Your task to perform on an android device: delete browsing data in the chrome app Image 0: 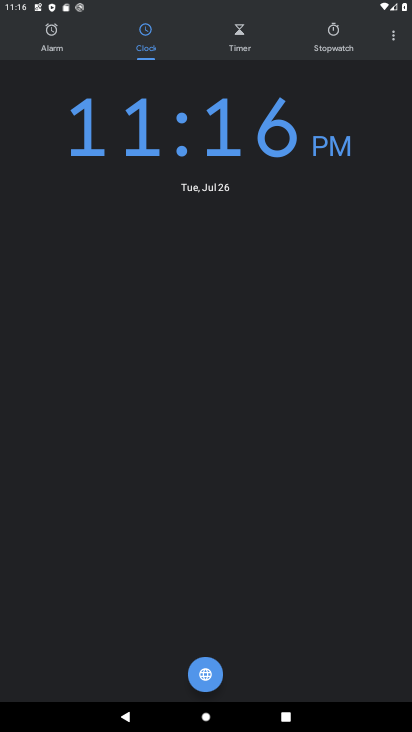
Step 0: press home button
Your task to perform on an android device: delete browsing data in the chrome app Image 1: 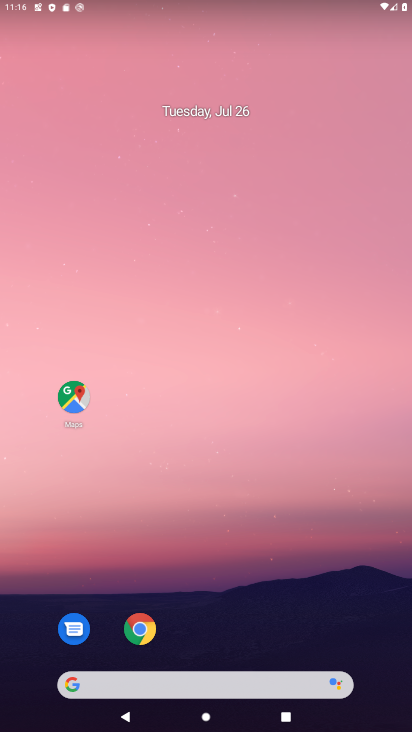
Step 1: click (134, 627)
Your task to perform on an android device: delete browsing data in the chrome app Image 2: 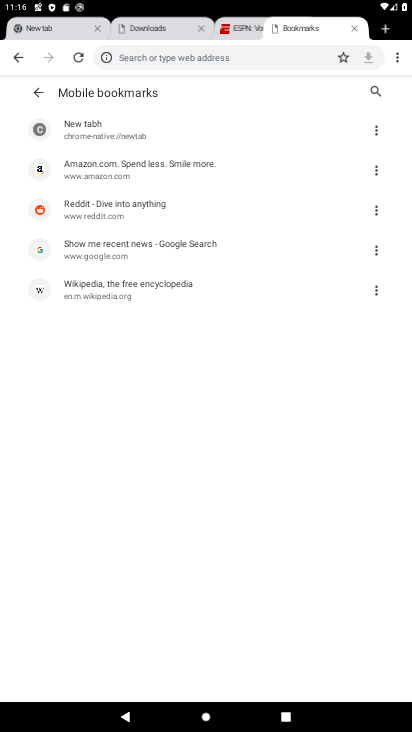
Step 2: click (399, 54)
Your task to perform on an android device: delete browsing data in the chrome app Image 3: 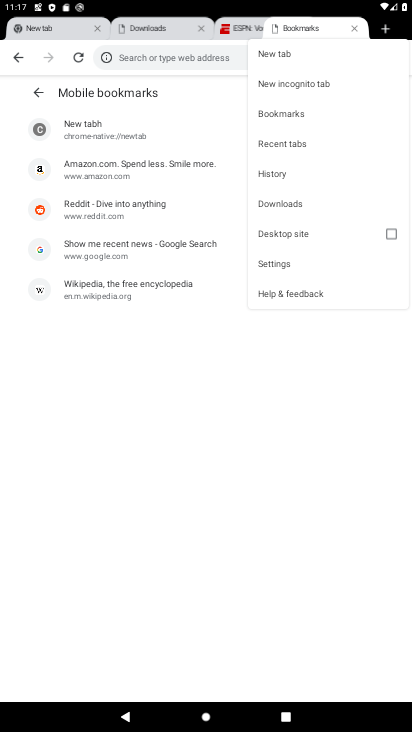
Step 3: click (293, 172)
Your task to perform on an android device: delete browsing data in the chrome app Image 4: 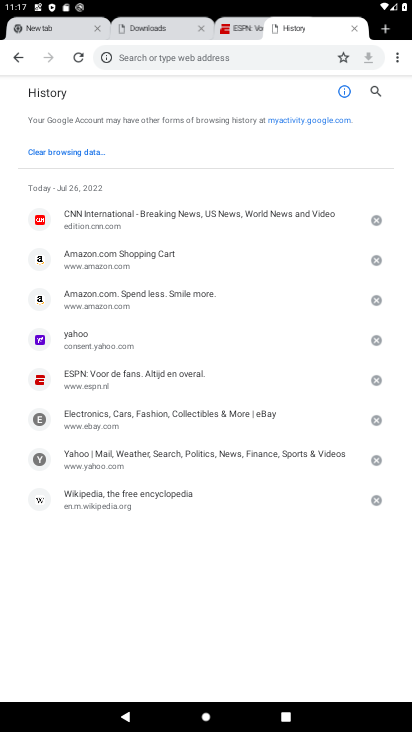
Step 4: click (83, 147)
Your task to perform on an android device: delete browsing data in the chrome app Image 5: 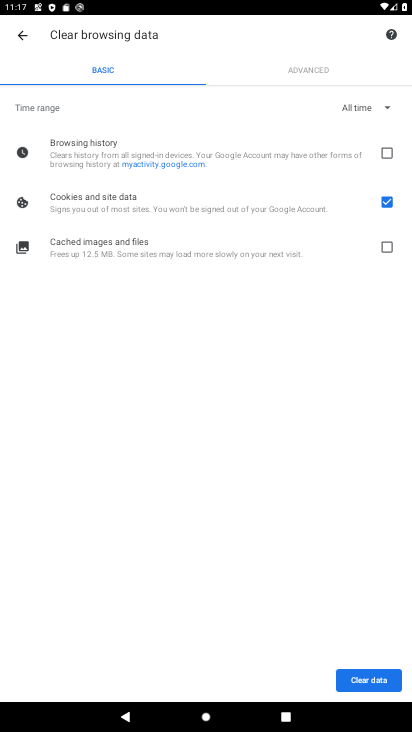
Step 5: click (388, 166)
Your task to perform on an android device: delete browsing data in the chrome app Image 6: 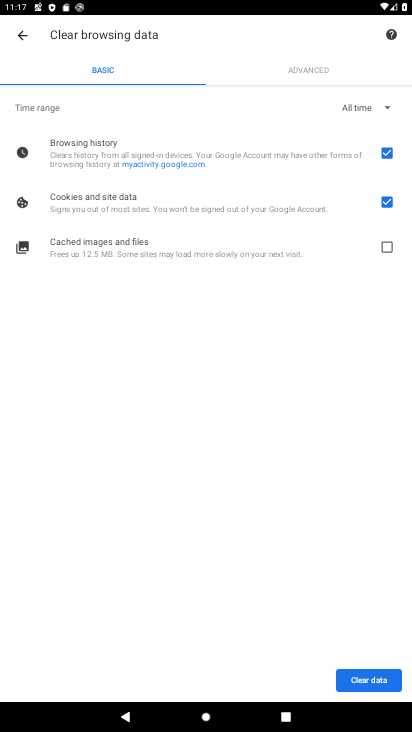
Step 6: click (384, 249)
Your task to perform on an android device: delete browsing data in the chrome app Image 7: 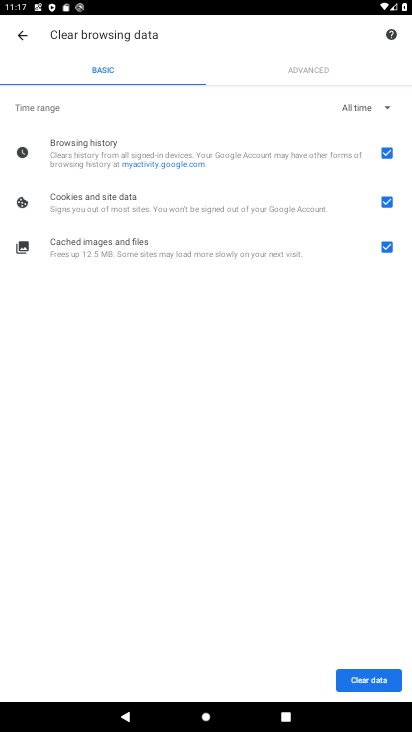
Step 7: click (376, 684)
Your task to perform on an android device: delete browsing data in the chrome app Image 8: 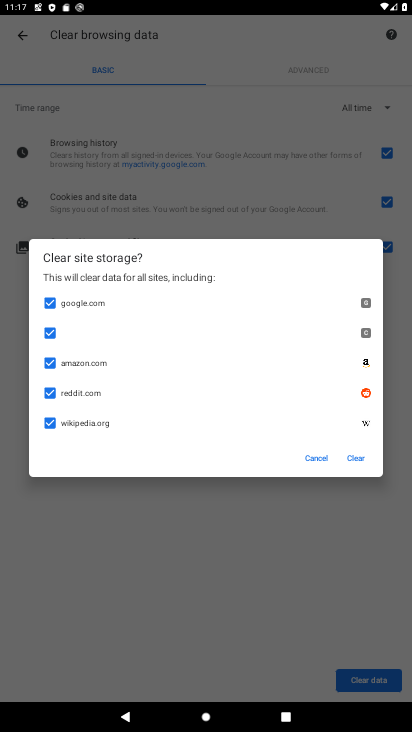
Step 8: task complete